Your task to perform on an android device: toggle pop-ups in chrome Image 0: 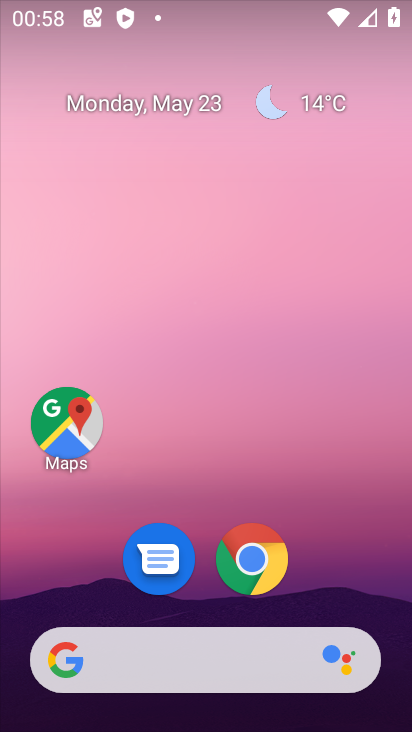
Step 0: click (255, 562)
Your task to perform on an android device: toggle pop-ups in chrome Image 1: 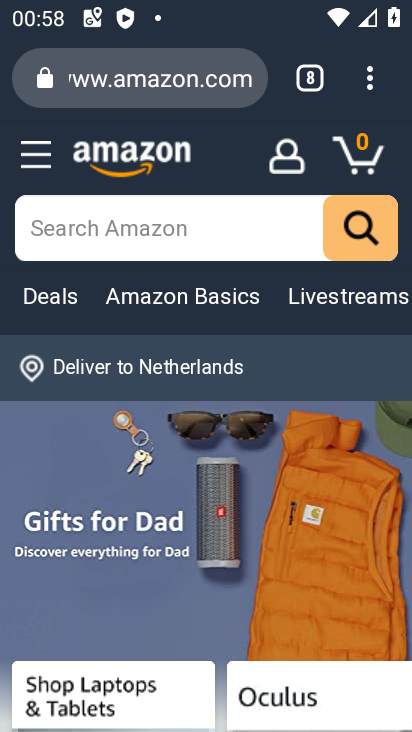
Step 1: click (371, 82)
Your task to perform on an android device: toggle pop-ups in chrome Image 2: 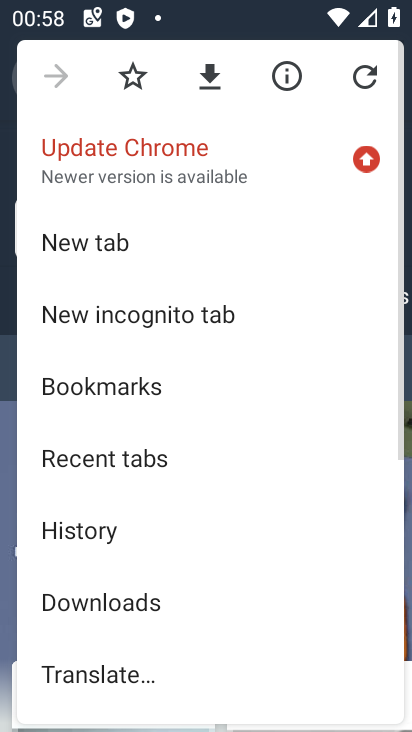
Step 2: drag from (168, 570) to (174, 167)
Your task to perform on an android device: toggle pop-ups in chrome Image 3: 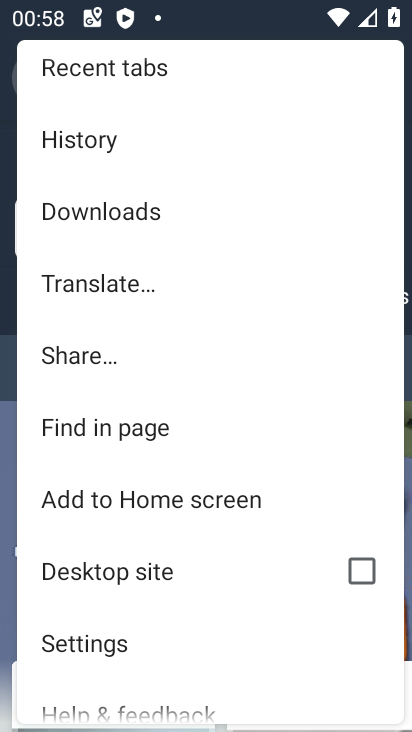
Step 3: click (100, 651)
Your task to perform on an android device: toggle pop-ups in chrome Image 4: 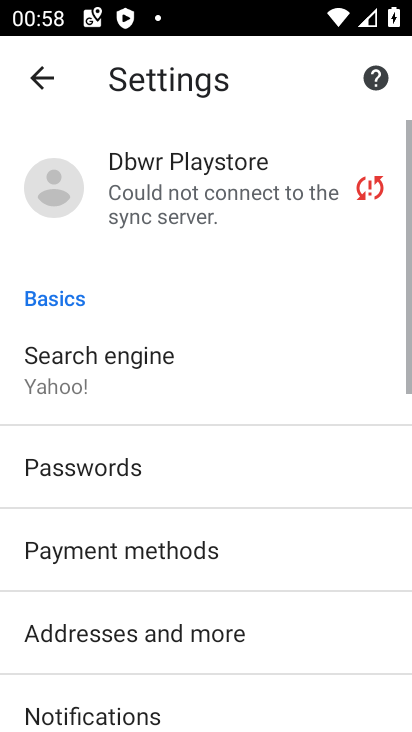
Step 4: drag from (165, 644) to (175, 146)
Your task to perform on an android device: toggle pop-ups in chrome Image 5: 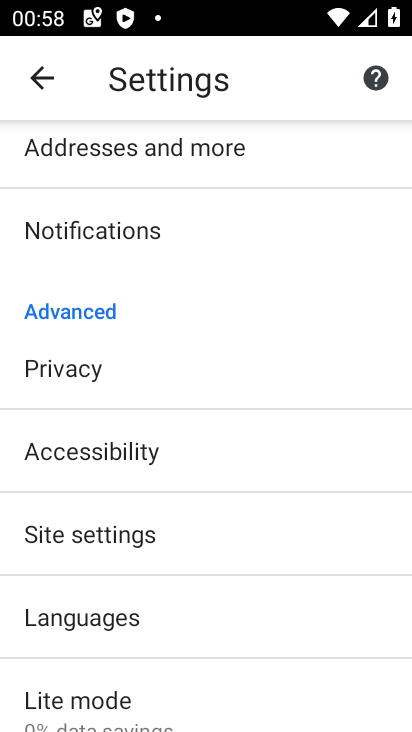
Step 5: click (119, 534)
Your task to perform on an android device: toggle pop-ups in chrome Image 6: 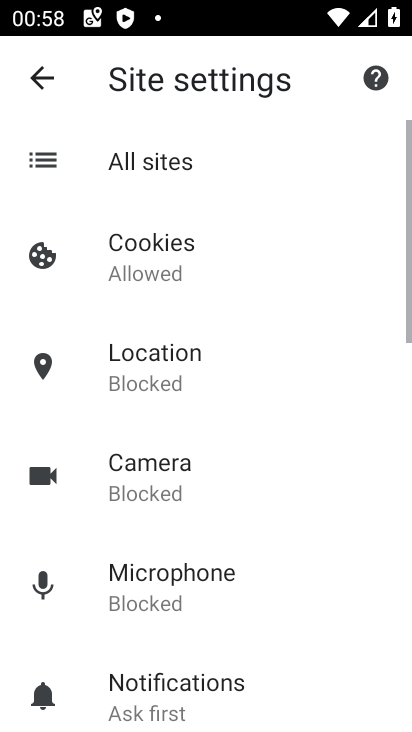
Step 6: drag from (212, 551) to (220, 104)
Your task to perform on an android device: toggle pop-ups in chrome Image 7: 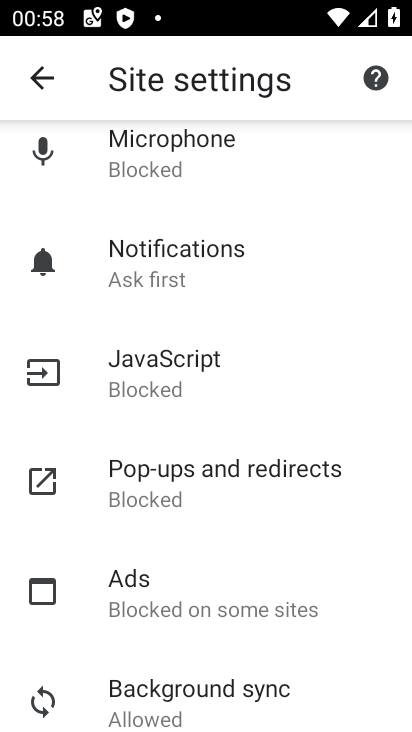
Step 7: click (155, 487)
Your task to perform on an android device: toggle pop-ups in chrome Image 8: 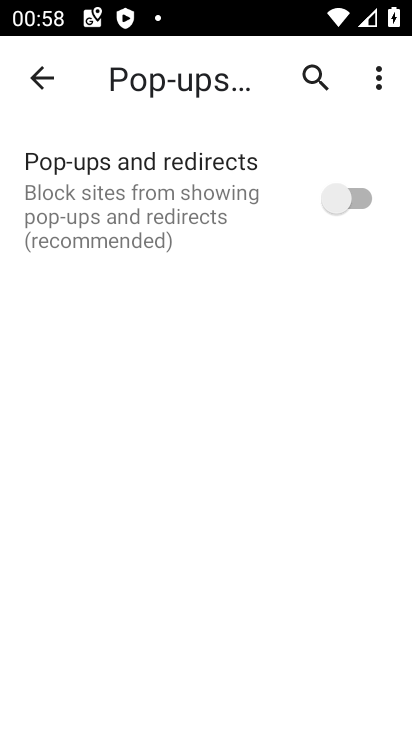
Step 8: click (348, 207)
Your task to perform on an android device: toggle pop-ups in chrome Image 9: 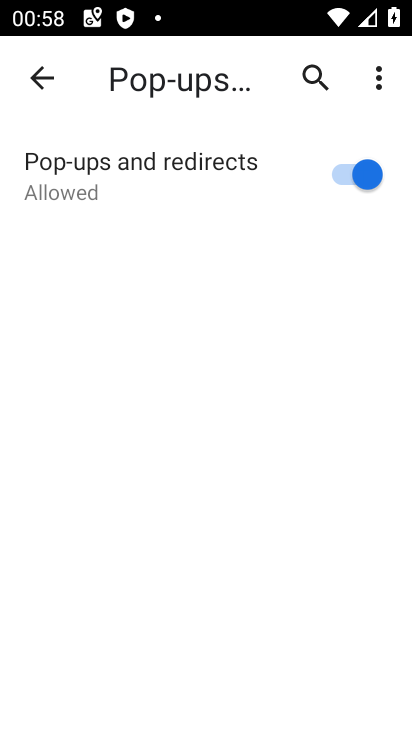
Step 9: task complete